Your task to perform on an android device: Open Chrome and go to the settings page Image 0: 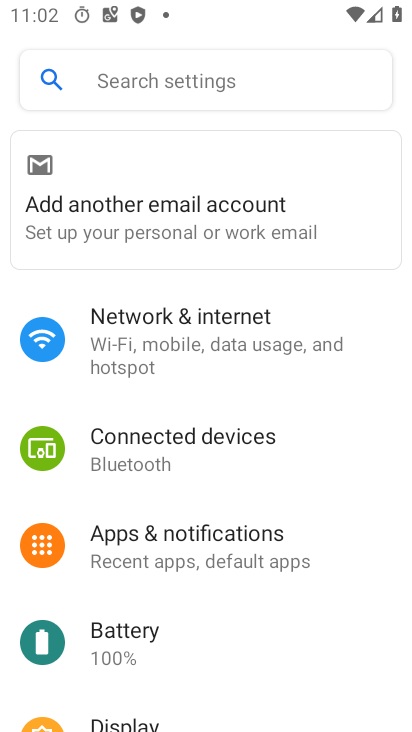
Step 0: press back button
Your task to perform on an android device: Open Chrome and go to the settings page Image 1: 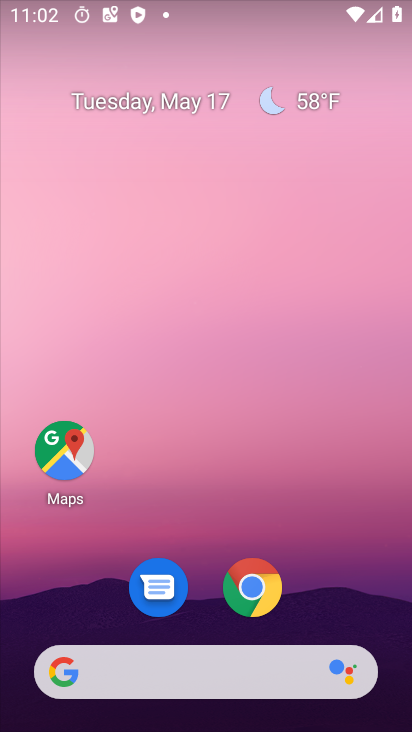
Step 1: click (250, 588)
Your task to perform on an android device: Open Chrome and go to the settings page Image 2: 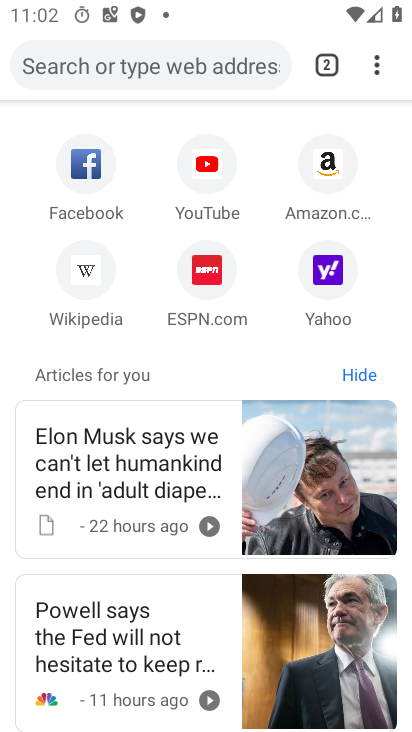
Step 2: click (377, 65)
Your task to perform on an android device: Open Chrome and go to the settings page Image 3: 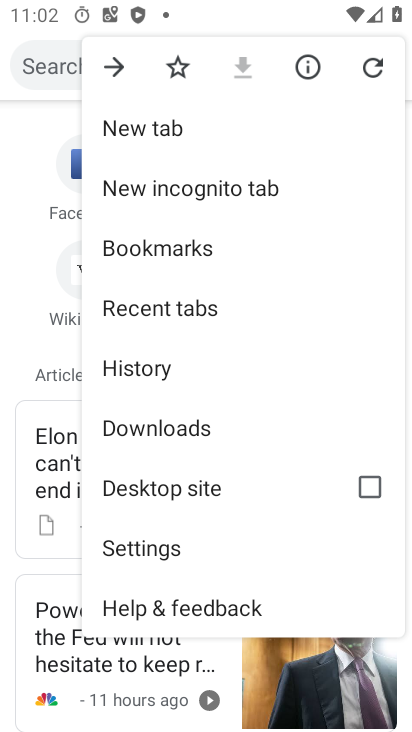
Step 3: drag from (229, 384) to (244, 326)
Your task to perform on an android device: Open Chrome and go to the settings page Image 4: 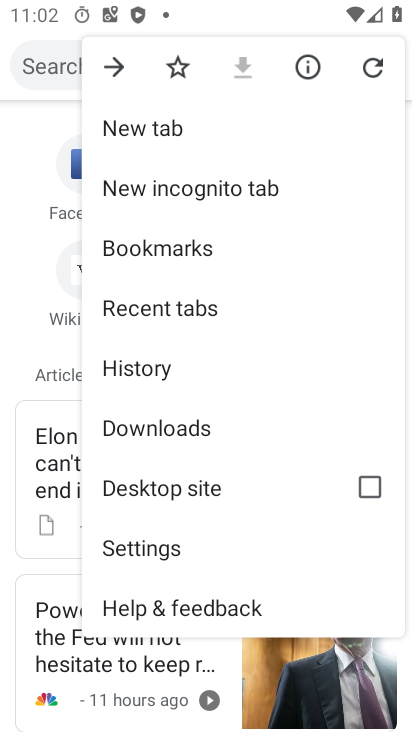
Step 4: click (138, 547)
Your task to perform on an android device: Open Chrome and go to the settings page Image 5: 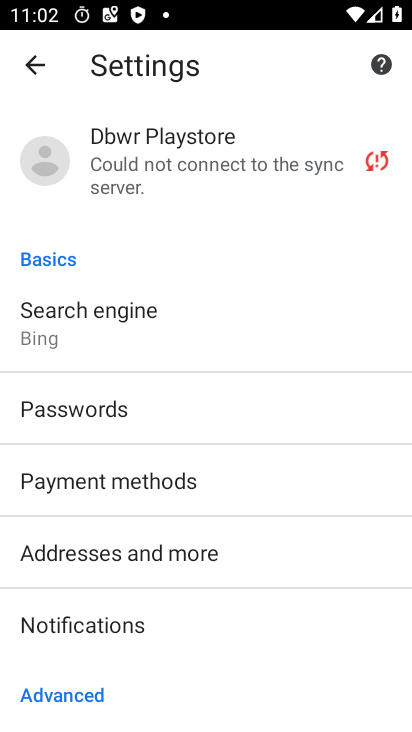
Step 5: task complete